Your task to perform on an android device: Is it going to rain today? Image 0: 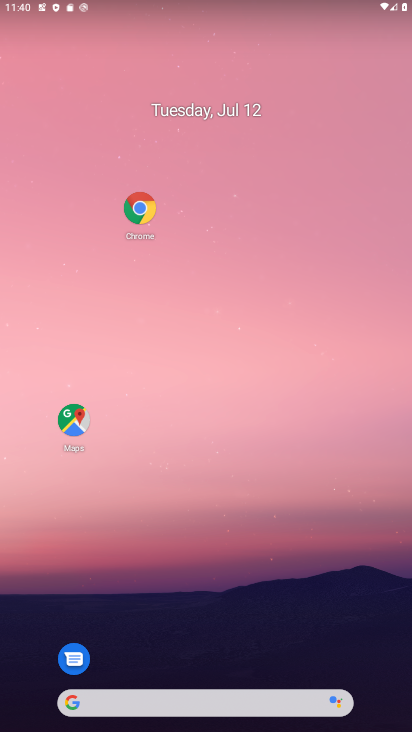
Step 0: drag from (195, 713) to (195, 18)
Your task to perform on an android device: Is it going to rain today? Image 1: 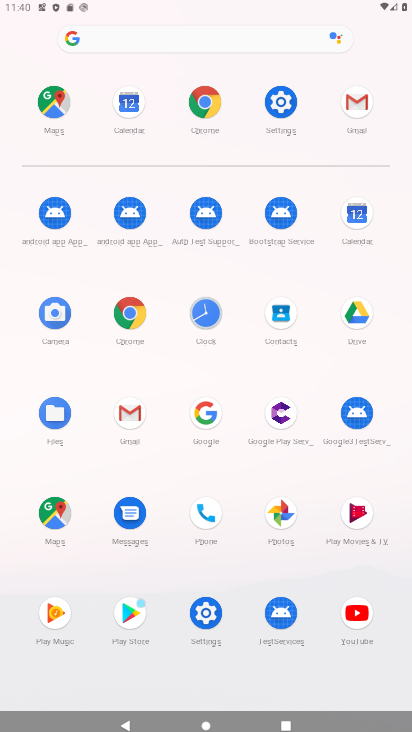
Step 1: click (120, 320)
Your task to perform on an android device: Is it going to rain today? Image 2: 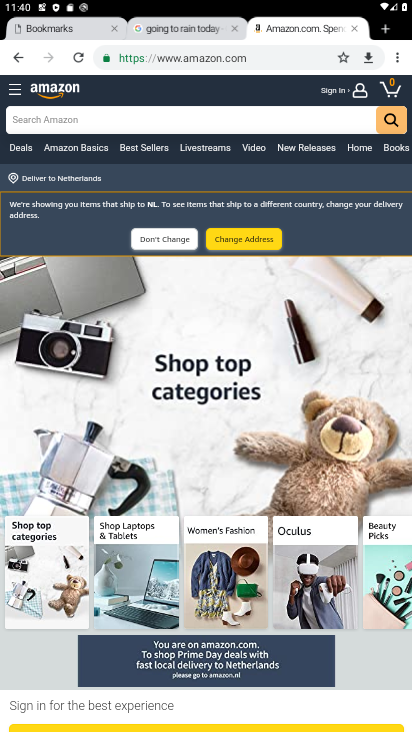
Step 2: click (247, 57)
Your task to perform on an android device: Is it going to rain today? Image 3: 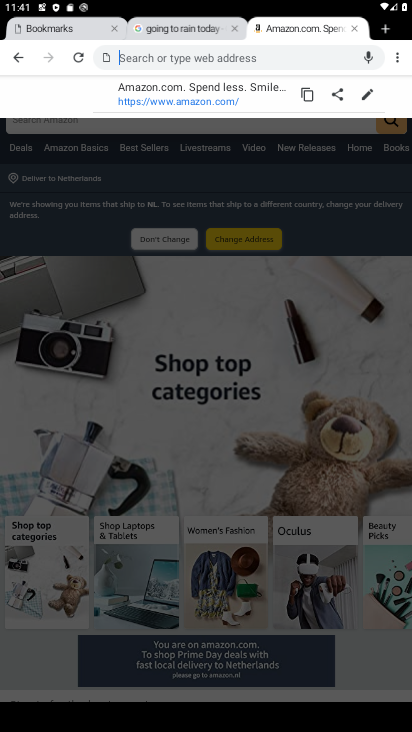
Step 3: click (198, 19)
Your task to perform on an android device: Is it going to rain today? Image 4: 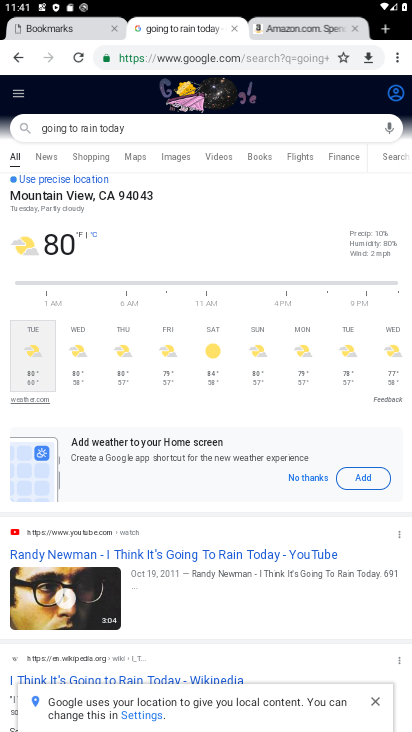
Step 4: task complete